Your task to perform on an android device: stop showing notifications on the lock screen Image 0: 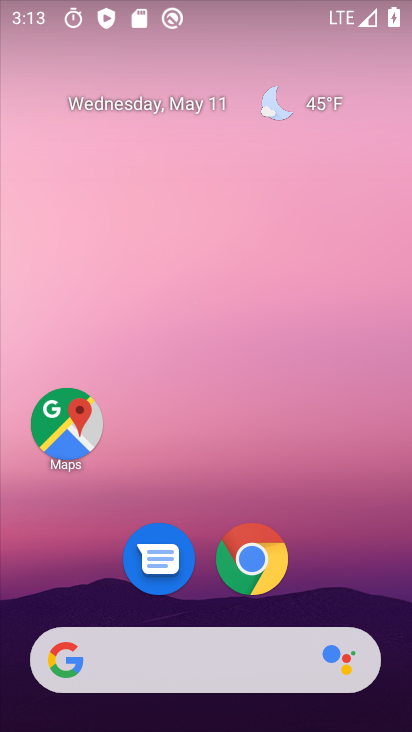
Step 0: drag from (326, 563) to (237, 78)
Your task to perform on an android device: stop showing notifications on the lock screen Image 1: 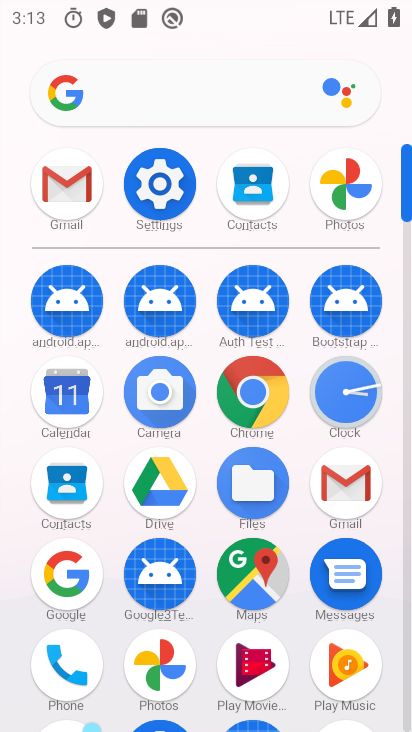
Step 1: click (173, 196)
Your task to perform on an android device: stop showing notifications on the lock screen Image 2: 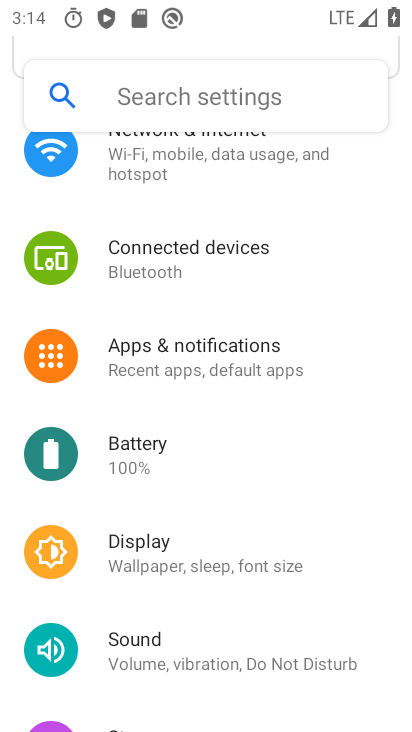
Step 2: click (197, 351)
Your task to perform on an android device: stop showing notifications on the lock screen Image 3: 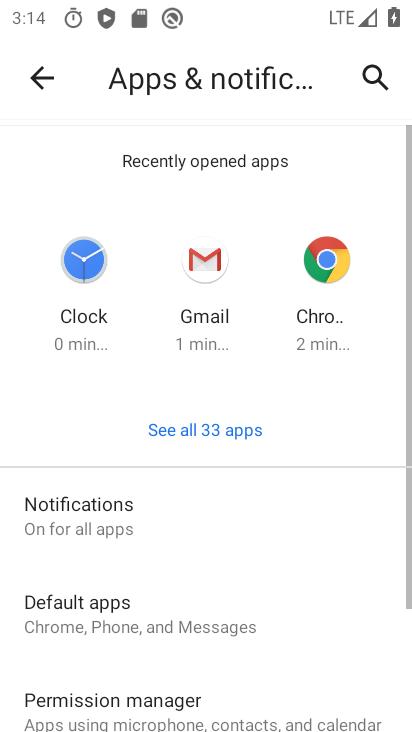
Step 3: click (128, 512)
Your task to perform on an android device: stop showing notifications on the lock screen Image 4: 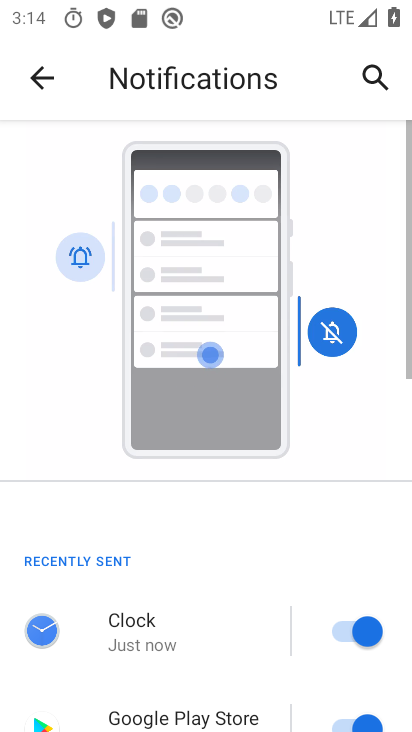
Step 4: drag from (239, 645) to (246, 194)
Your task to perform on an android device: stop showing notifications on the lock screen Image 5: 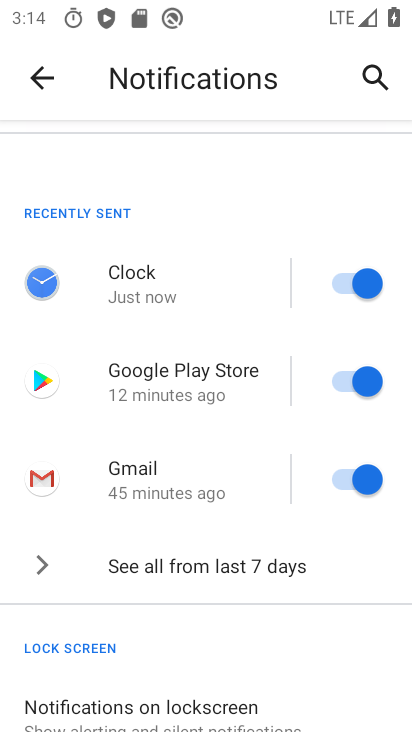
Step 5: click (203, 721)
Your task to perform on an android device: stop showing notifications on the lock screen Image 6: 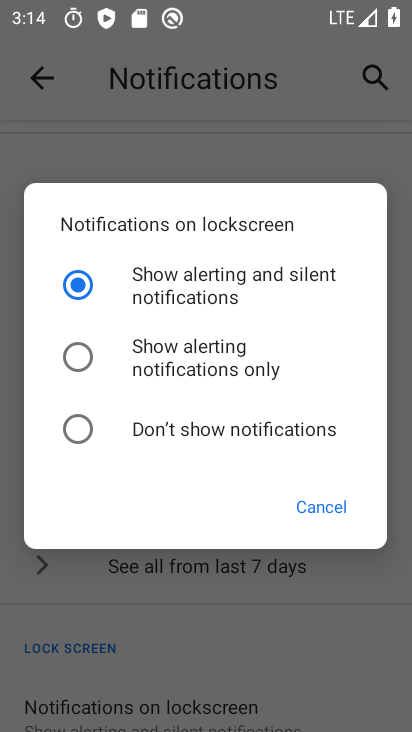
Step 6: click (134, 430)
Your task to perform on an android device: stop showing notifications on the lock screen Image 7: 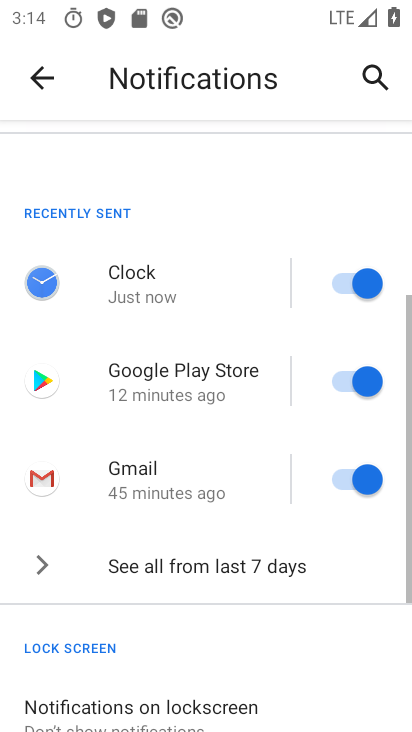
Step 7: task complete